Your task to perform on an android device: Open wifi settings Image 0: 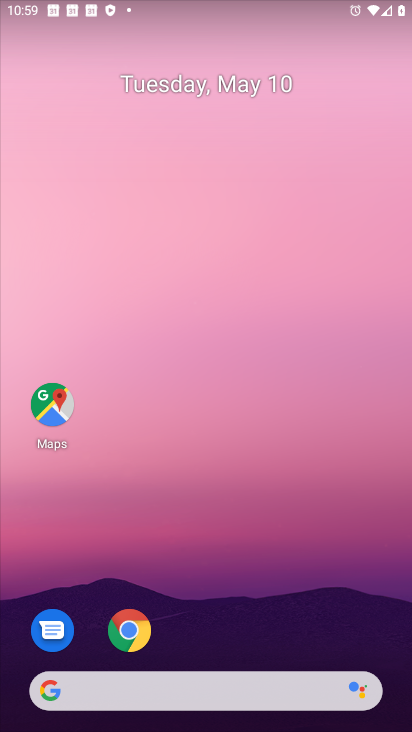
Step 0: drag from (258, 552) to (251, 19)
Your task to perform on an android device: Open wifi settings Image 1: 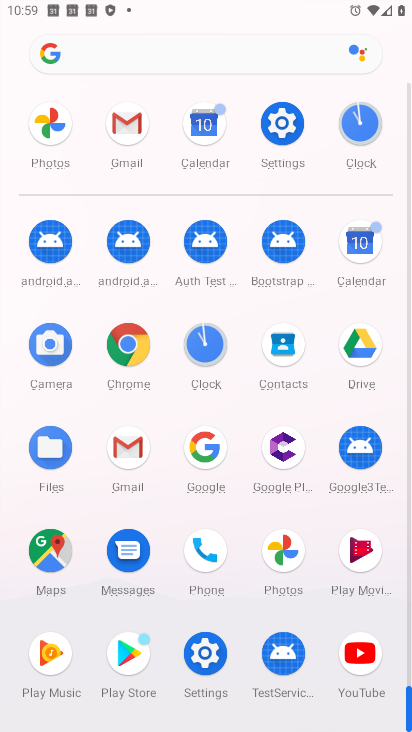
Step 1: click (289, 114)
Your task to perform on an android device: Open wifi settings Image 2: 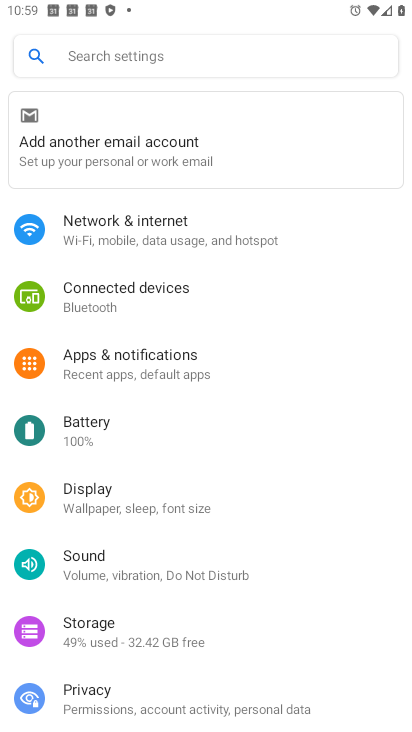
Step 2: click (143, 222)
Your task to perform on an android device: Open wifi settings Image 3: 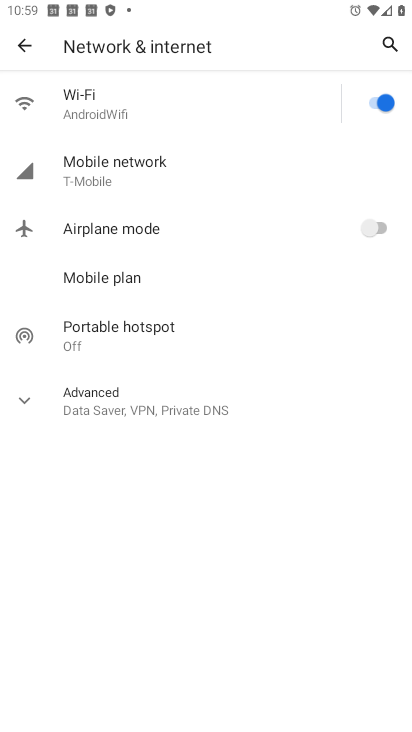
Step 3: click (133, 101)
Your task to perform on an android device: Open wifi settings Image 4: 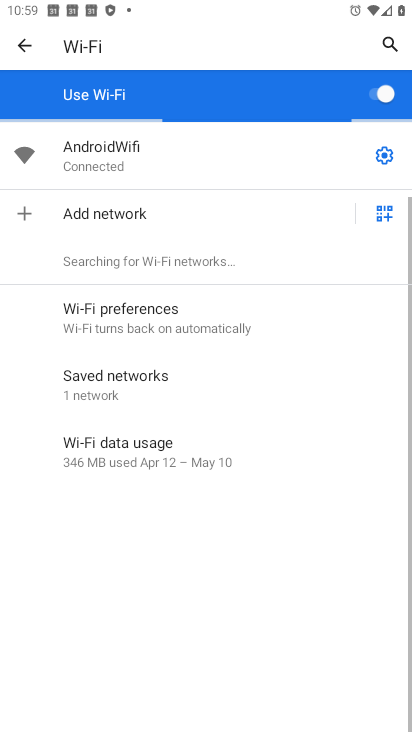
Step 4: click (384, 149)
Your task to perform on an android device: Open wifi settings Image 5: 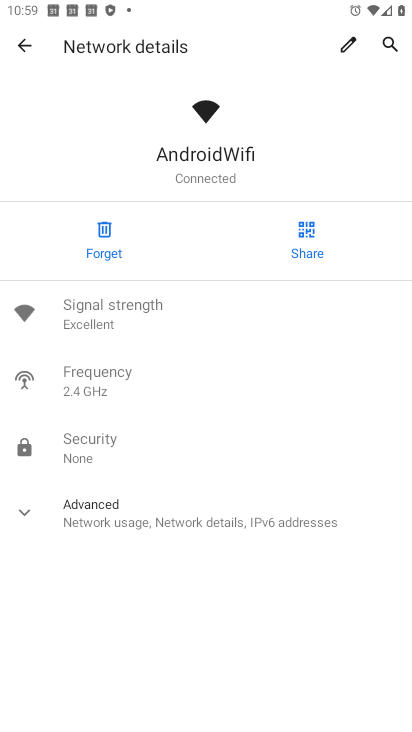
Step 5: task complete